Your task to perform on an android device: Open eBay Image 0: 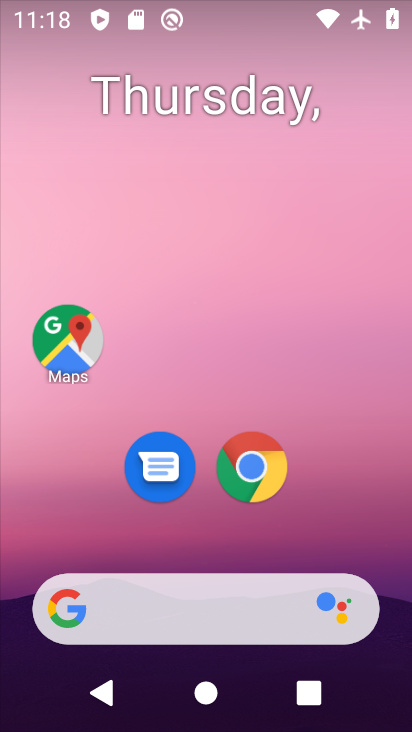
Step 0: click (244, 473)
Your task to perform on an android device: Open eBay Image 1: 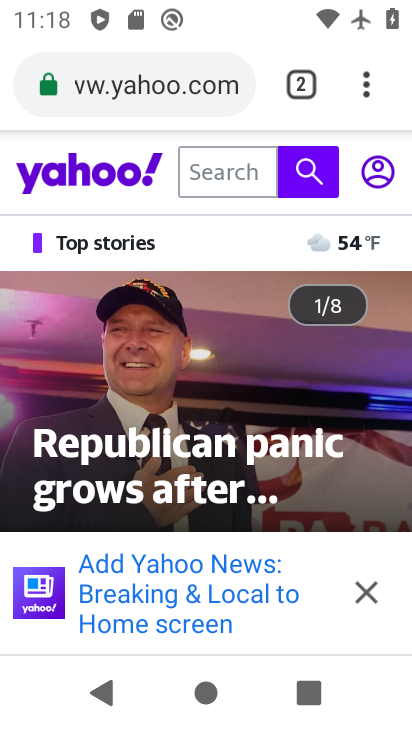
Step 1: click (96, 94)
Your task to perform on an android device: Open eBay Image 2: 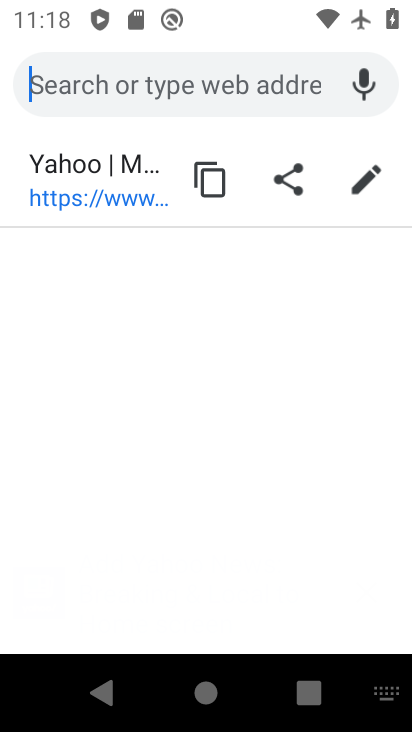
Step 2: type "ebay"
Your task to perform on an android device: Open eBay Image 3: 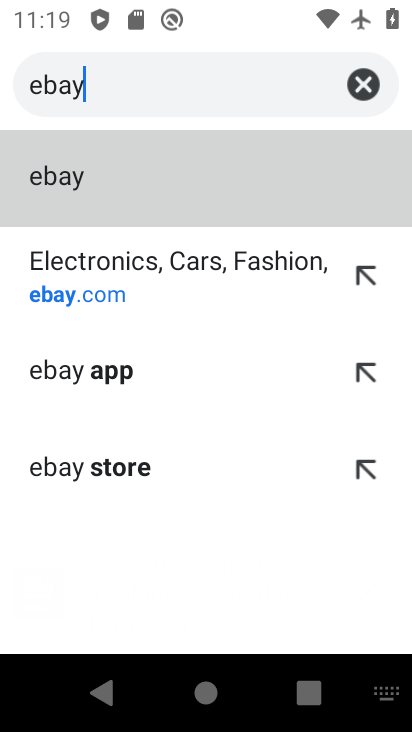
Step 3: click (43, 185)
Your task to perform on an android device: Open eBay Image 4: 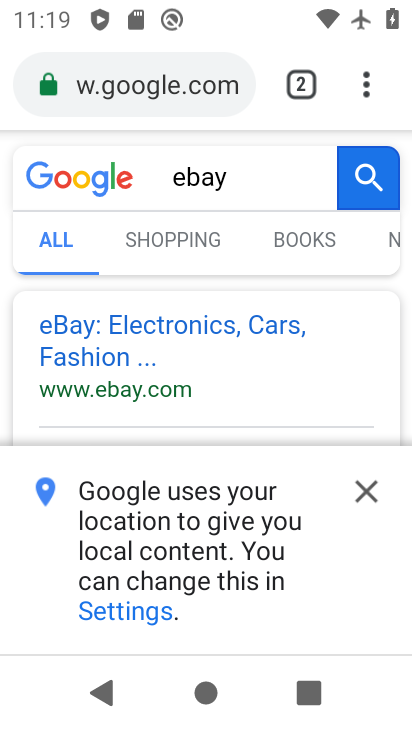
Step 4: click (66, 339)
Your task to perform on an android device: Open eBay Image 5: 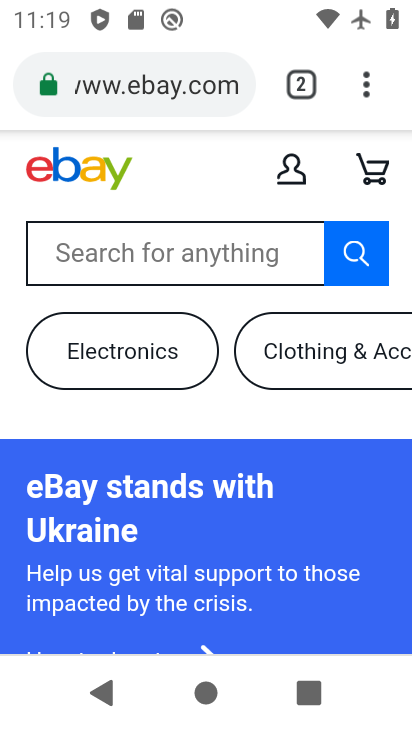
Step 5: task complete